Your task to perform on an android device: Open Google Chrome Image 0: 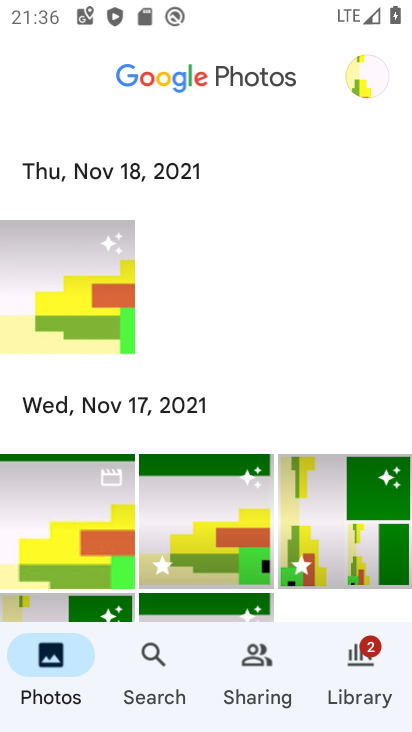
Step 0: press home button
Your task to perform on an android device: Open Google Chrome Image 1: 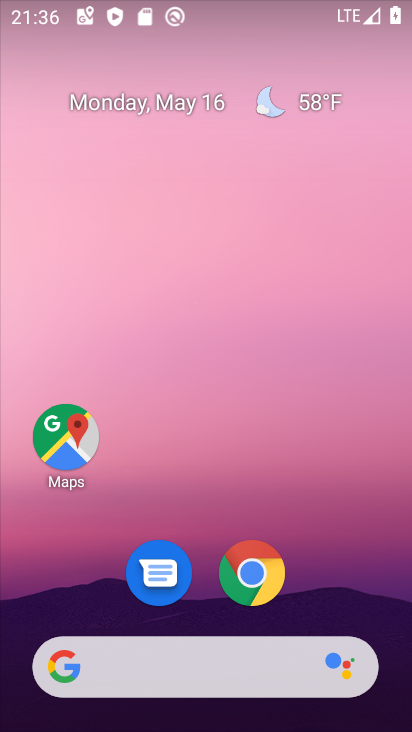
Step 1: click (257, 573)
Your task to perform on an android device: Open Google Chrome Image 2: 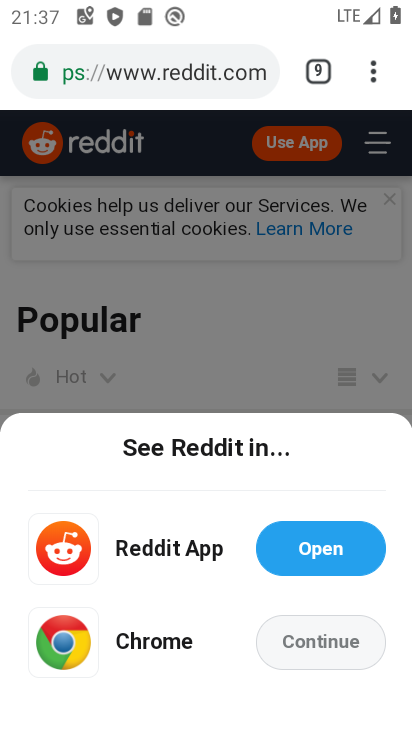
Step 2: task complete